Your task to perform on an android device: toggle priority inbox in the gmail app Image 0: 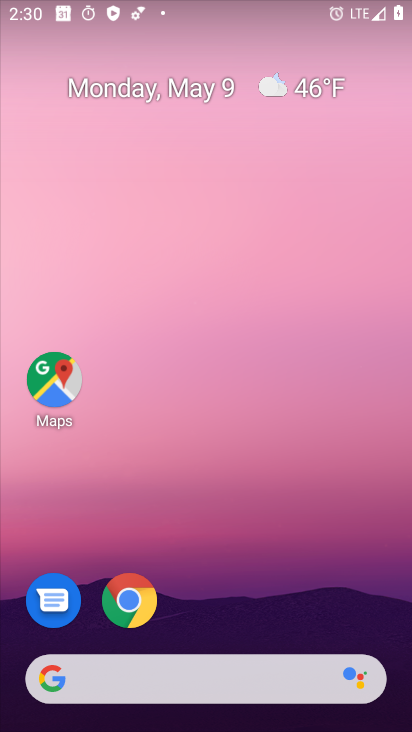
Step 0: drag from (190, 660) to (200, 139)
Your task to perform on an android device: toggle priority inbox in the gmail app Image 1: 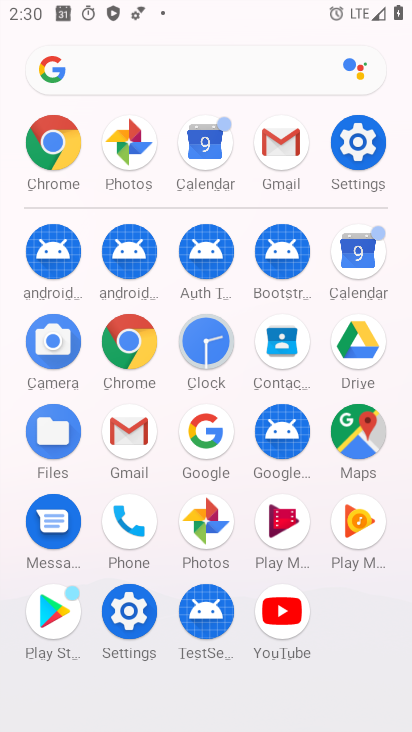
Step 1: click (141, 444)
Your task to perform on an android device: toggle priority inbox in the gmail app Image 2: 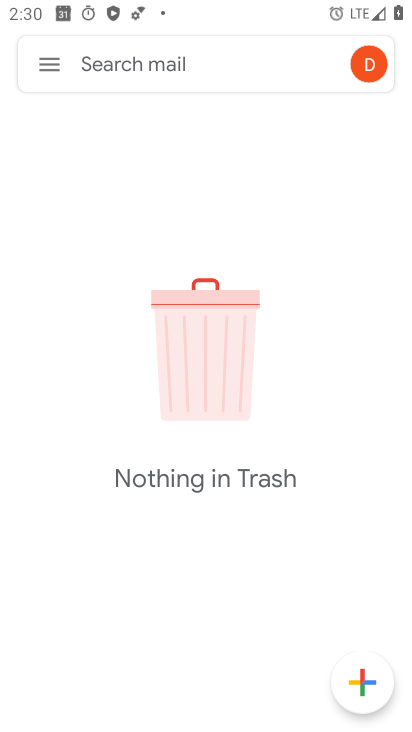
Step 2: click (37, 63)
Your task to perform on an android device: toggle priority inbox in the gmail app Image 3: 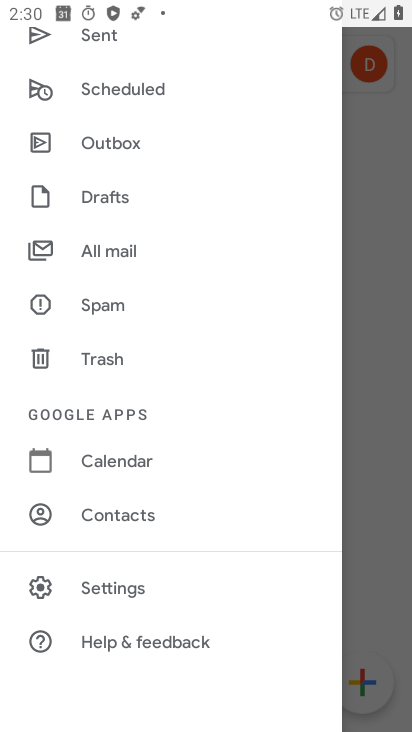
Step 3: click (90, 588)
Your task to perform on an android device: toggle priority inbox in the gmail app Image 4: 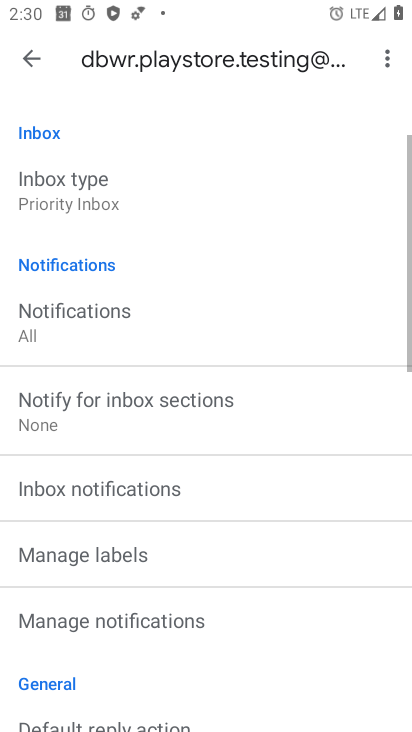
Step 4: click (90, 588)
Your task to perform on an android device: toggle priority inbox in the gmail app Image 5: 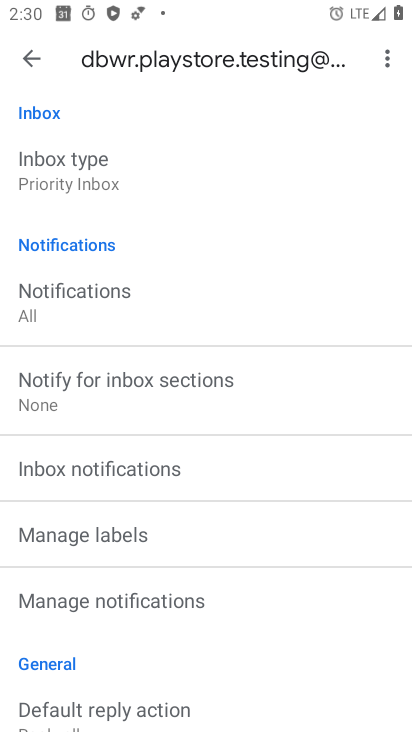
Step 5: click (67, 179)
Your task to perform on an android device: toggle priority inbox in the gmail app Image 6: 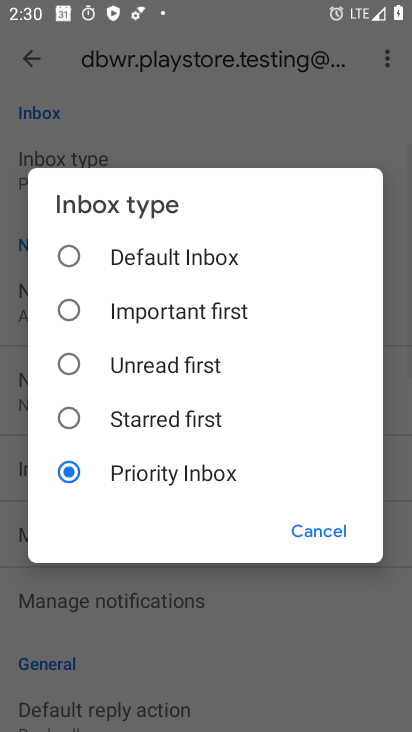
Step 6: click (177, 414)
Your task to perform on an android device: toggle priority inbox in the gmail app Image 7: 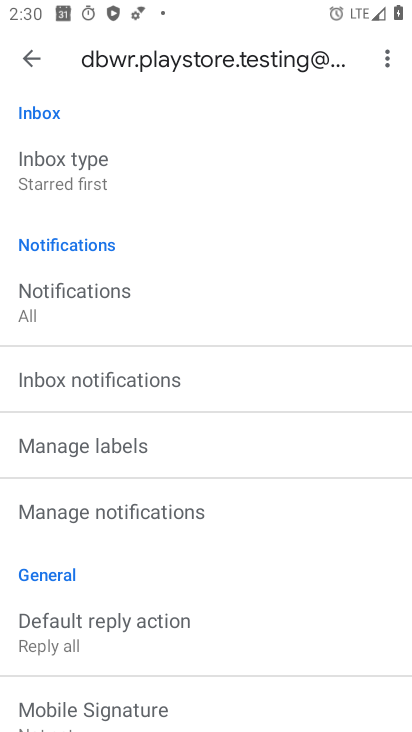
Step 7: task complete